Your task to perform on an android device: Go to internet settings Image 0: 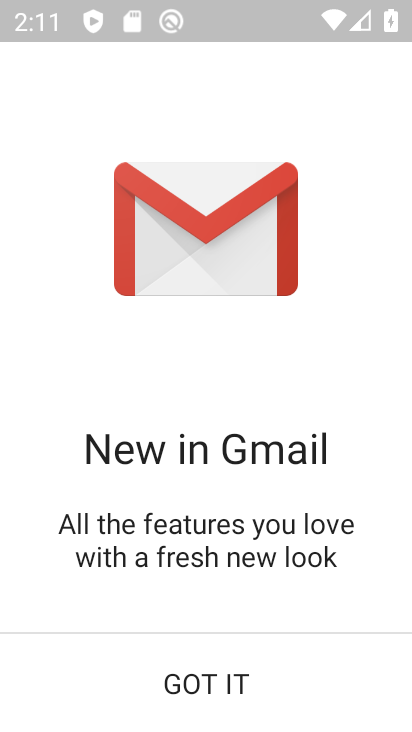
Step 0: press home button
Your task to perform on an android device: Go to internet settings Image 1: 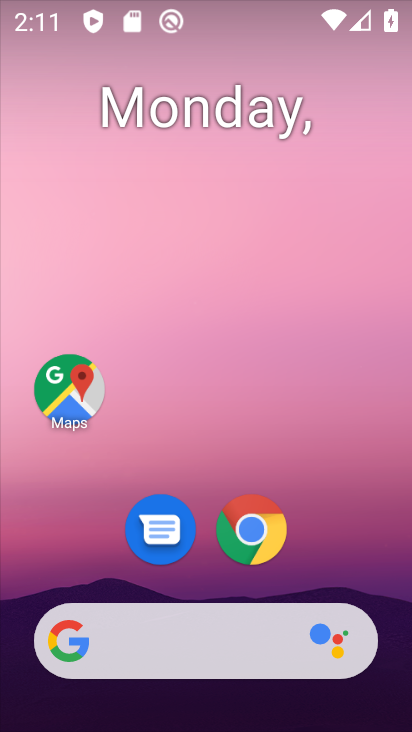
Step 1: drag from (378, 587) to (322, 147)
Your task to perform on an android device: Go to internet settings Image 2: 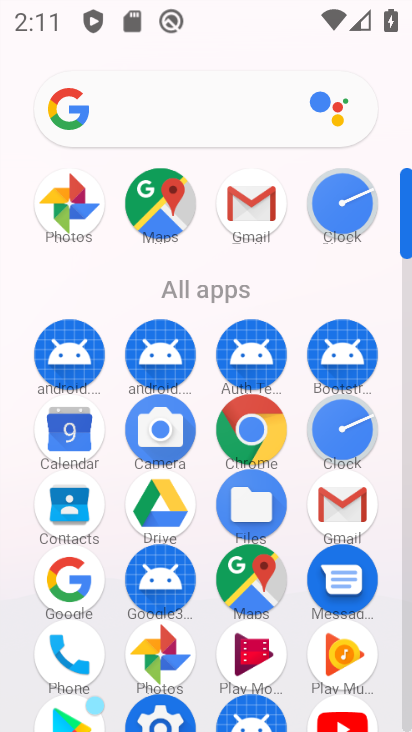
Step 2: drag from (305, 623) to (286, 290)
Your task to perform on an android device: Go to internet settings Image 3: 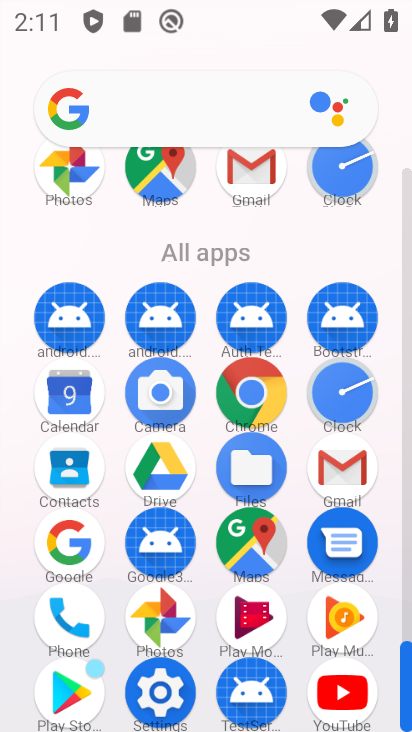
Step 3: click (161, 682)
Your task to perform on an android device: Go to internet settings Image 4: 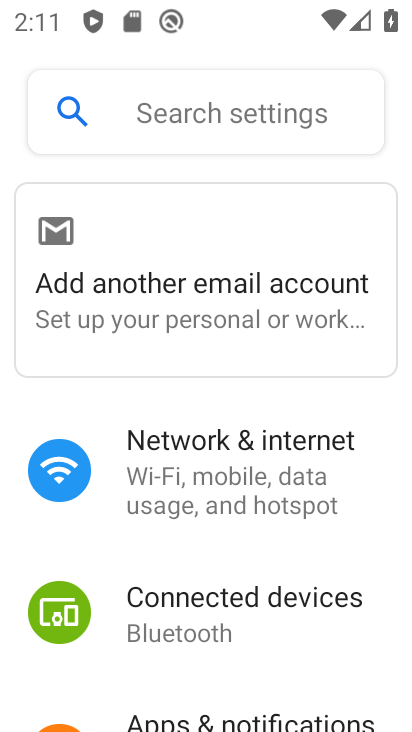
Step 4: click (241, 504)
Your task to perform on an android device: Go to internet settings Image 5: 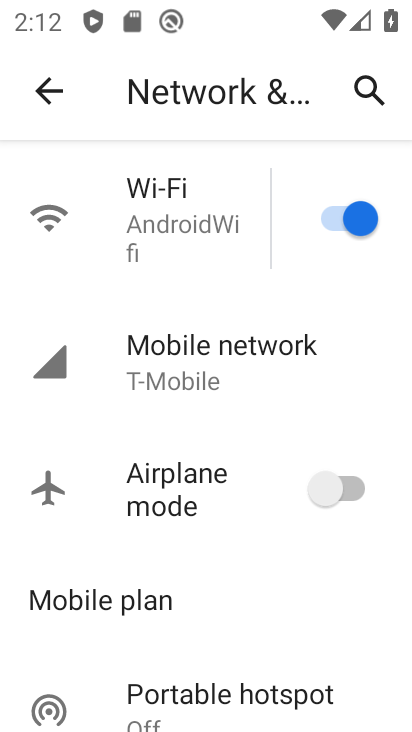
Step 5: click (170, 370)
Your task to perform on an android device: Go to internet settings Image 6: 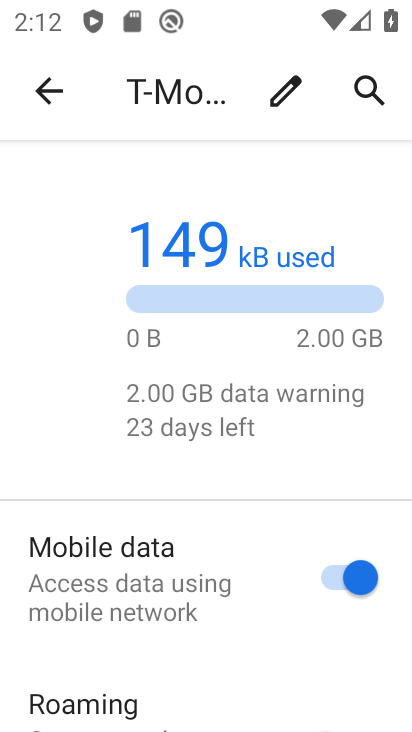
Step 6: press home button
Your task to perform on an android device: Go to internet settings Image 7: 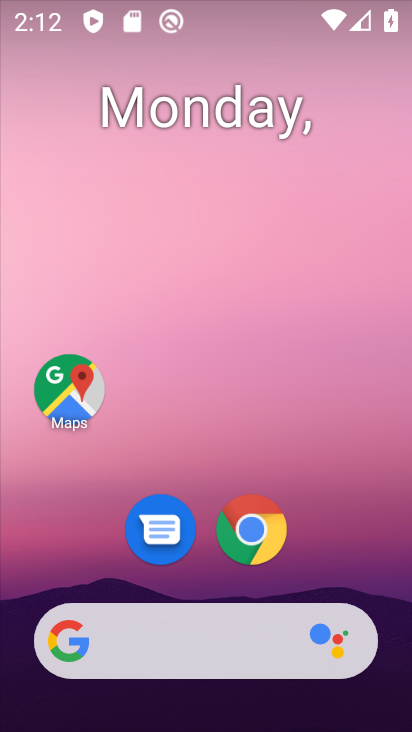
Step 7: drag from (365, 552) to (314, 137)
Your task to perform on an android device: Go to internet settings Image 8: 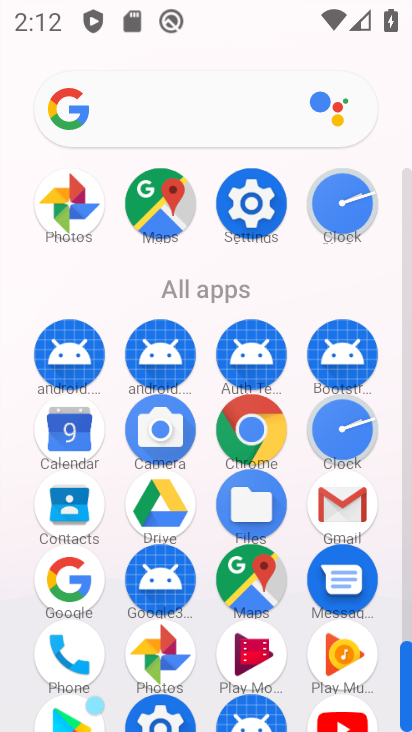
Step 8: click (246, 205)
Your task to perform on an android device: Go to internet settings Image 9: 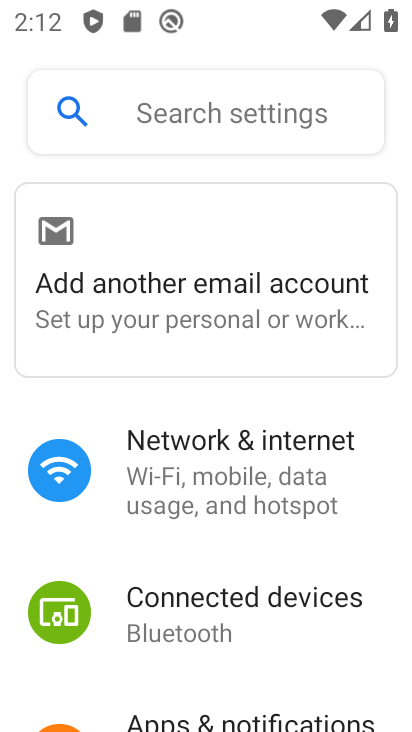
Step 9: drag from (232, 548) to (255, 378)
Your task to perform on an android device: Go to internet settings Image 10: 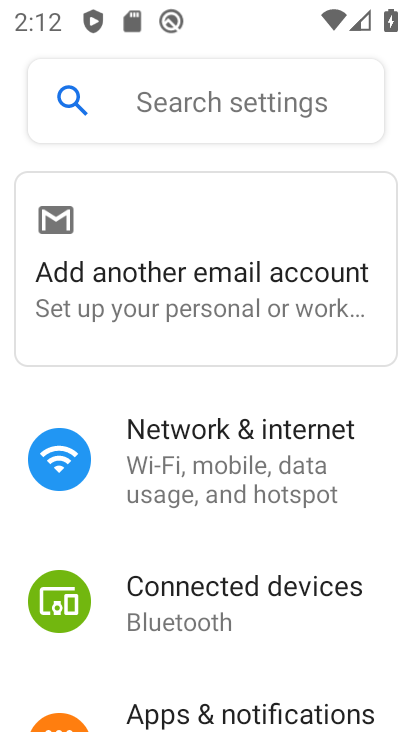
Step 10: drag from (247, 655) to (244, 318)
Your task to perform on an android device: Go to internet settings Image 11: 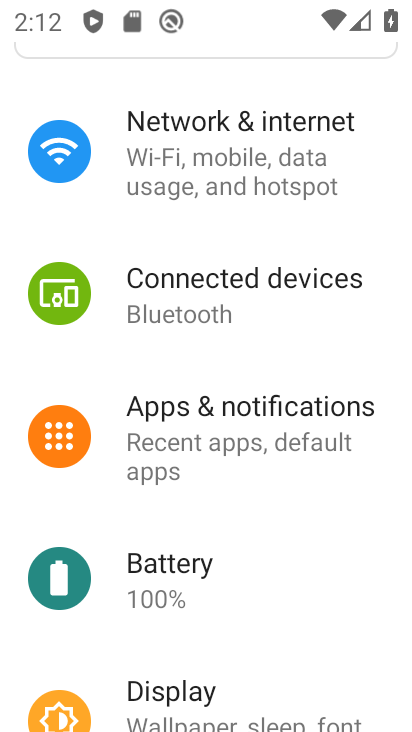
Step 11: drag from (277, 612) to (272, 361)
Your task to perform on an android device: Go to internet settings Image 12: 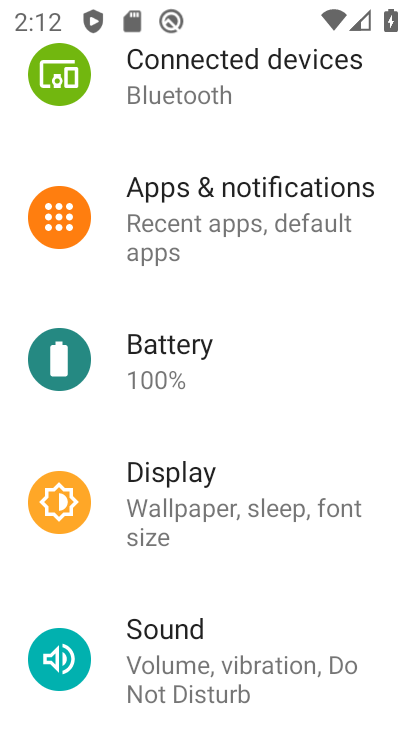
Step 12: drag from (265, 150) to (295, 622)
Your task to perform on an android device: Go to internet settings Image 13: 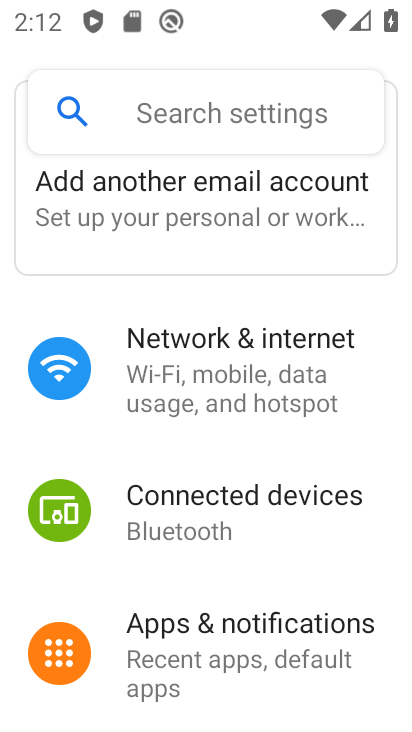
Step 13: click (261, 354)
Your task to perform on an android device: Go to internet settings Image 14: 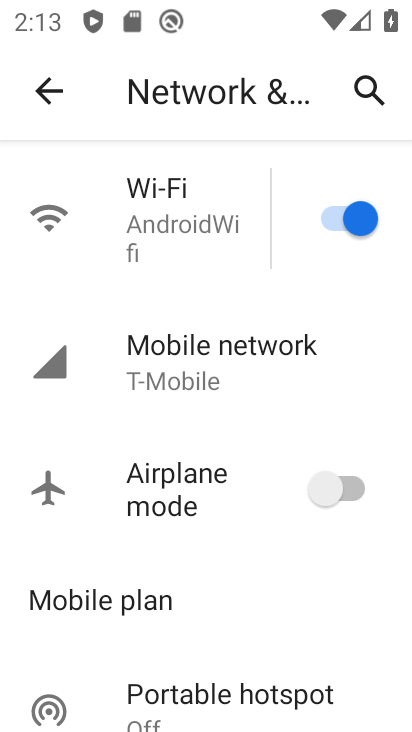
Step 14: task complete